Your task to perform on an android device: Open Google Chrome and click the shortcut for Amazon.com Image 0: 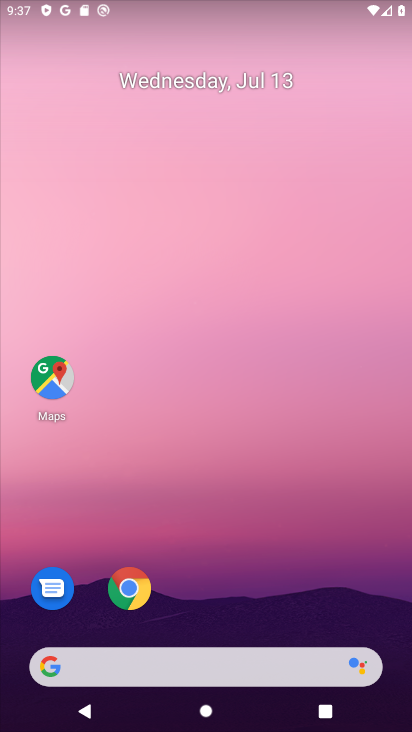
Step 0: click (131, 588)
Your task to perform on an android device: Open Google Chrome and click the shortcut for Amazon.com Image 1: 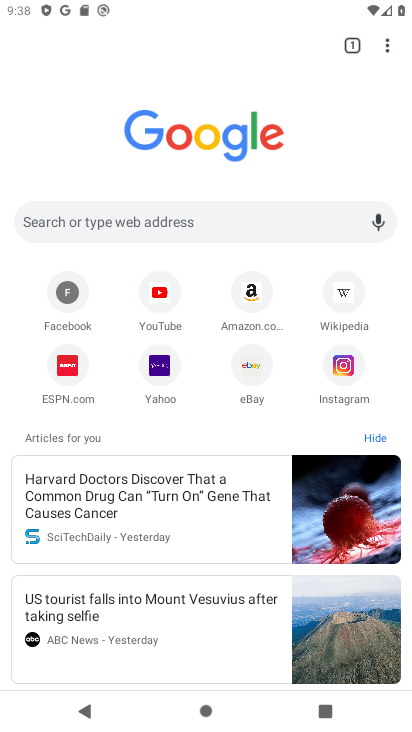
Step 1: click (247, 298)
Your task to perform on an android device: Open Google Chrome and click the shortcut for Amazon.com Image 2: 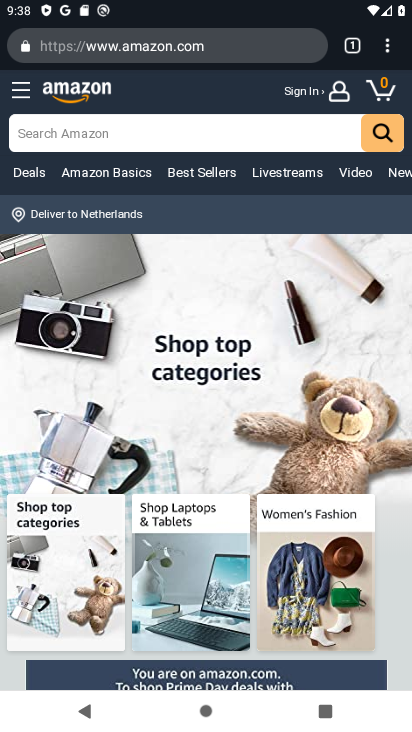
Step 2: task complete